Your task to perform on an android device: Show me popular videos on Youtube Image 0: 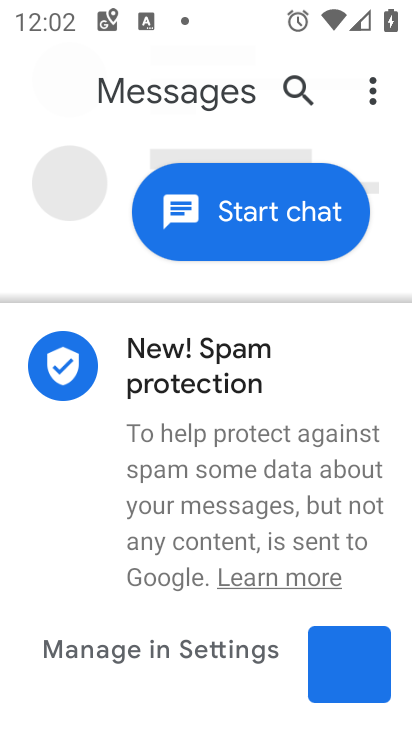
Step 0: drag from (198, 657) to (193, 36)
Your task to perform on an android device: Show me popular videos on Youtube Image 1: 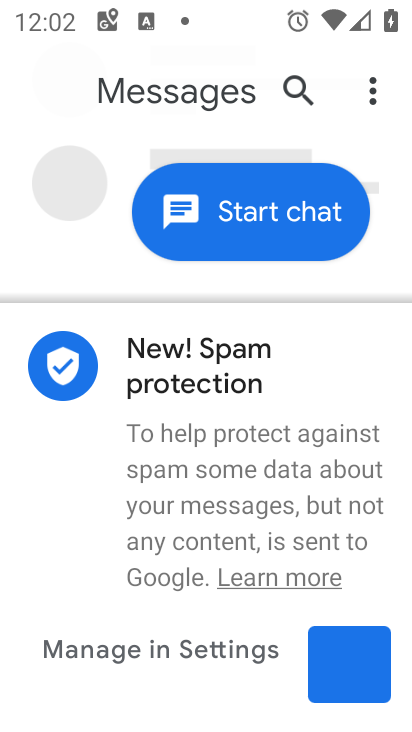
Step 1: press home button
Your task to perform on an android device: Show me popular videos on Youtube Image 2: 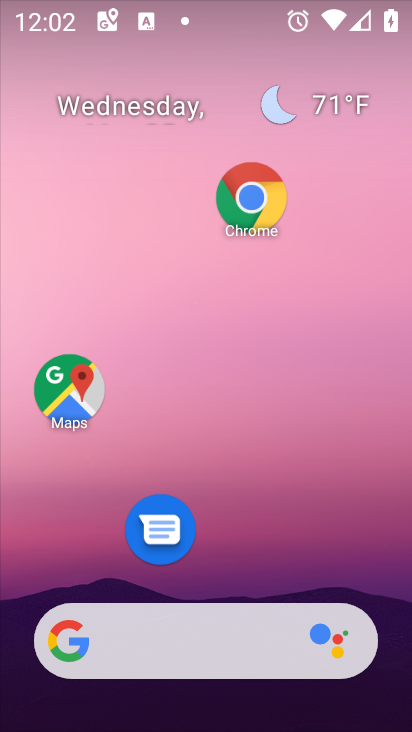
Step 2: drag from (184, 594) to (181, 208)
Your task to perform on an android device: Show me popular videos on Youtube Image 3: 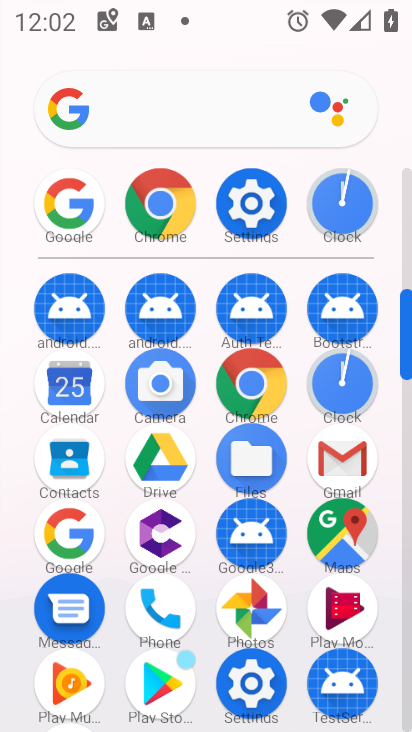
Step 3: drag from (165, 543) to (170, 149)
Your task to perform on an android device: Show me popular videos on Youtube Image 4: 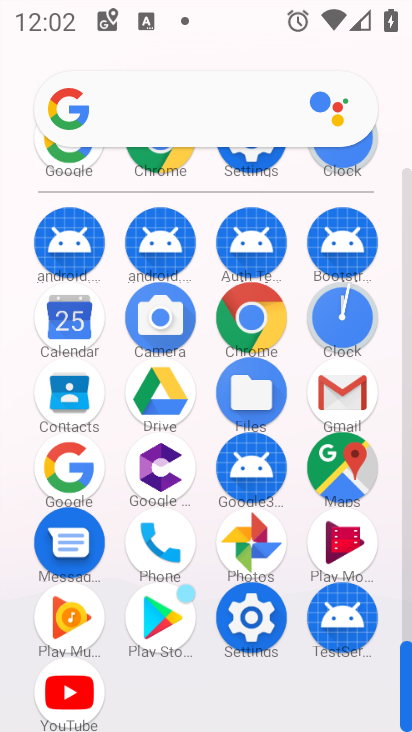
Step 4: click (88, 696)
Your task to perform on an android device: Show me popular videos on Youtube Image 5: 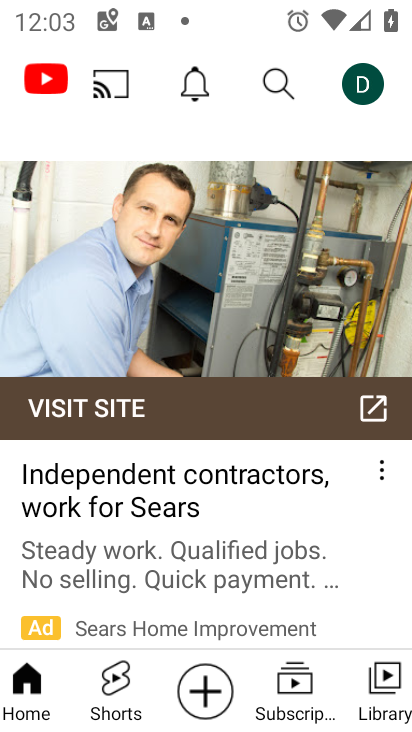
Step 5: task complete